Your task to perform on an android device: Clear the shopping cart on newegg.com. Image 0: 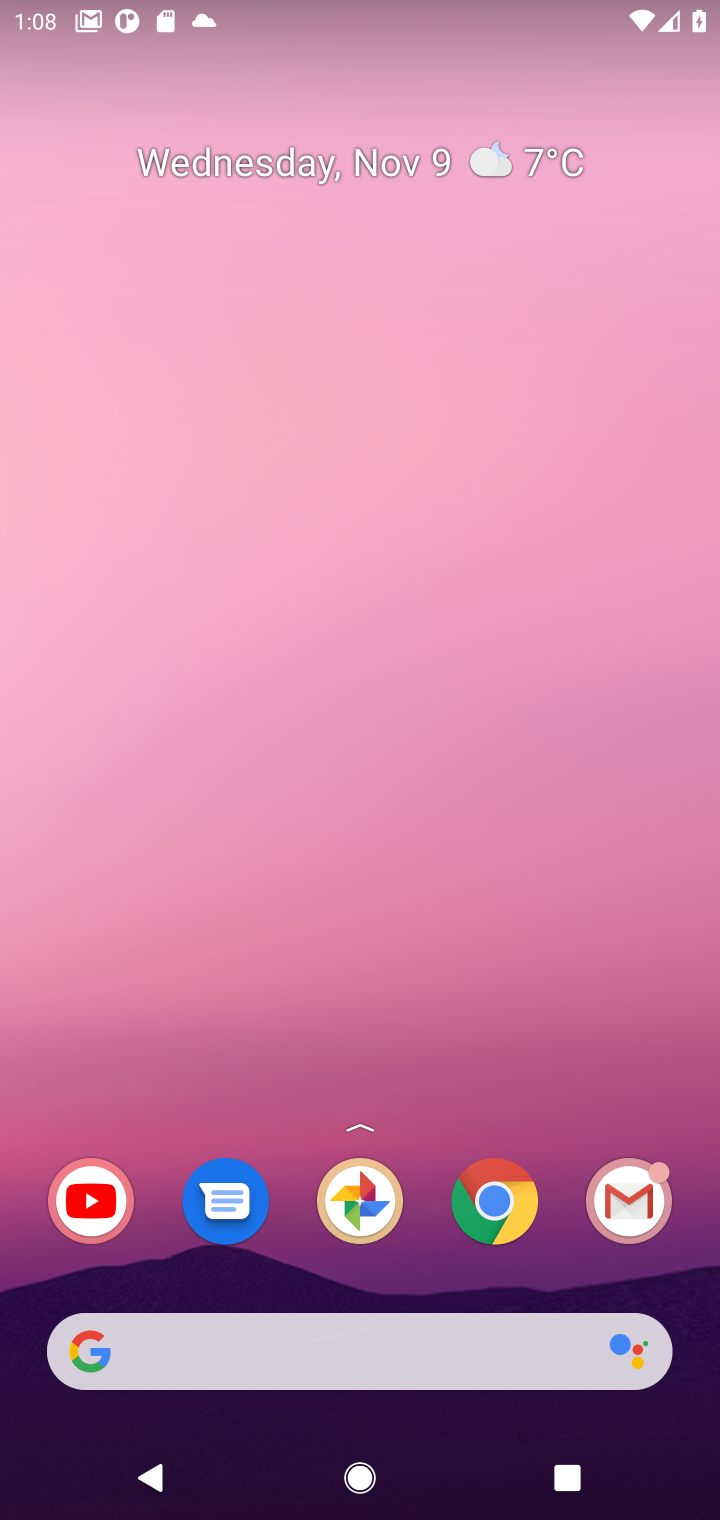
Step 0: click (335, 1372)
Your task to perform on an android device: Clear the shopping cart on newegg.com. Image 1: 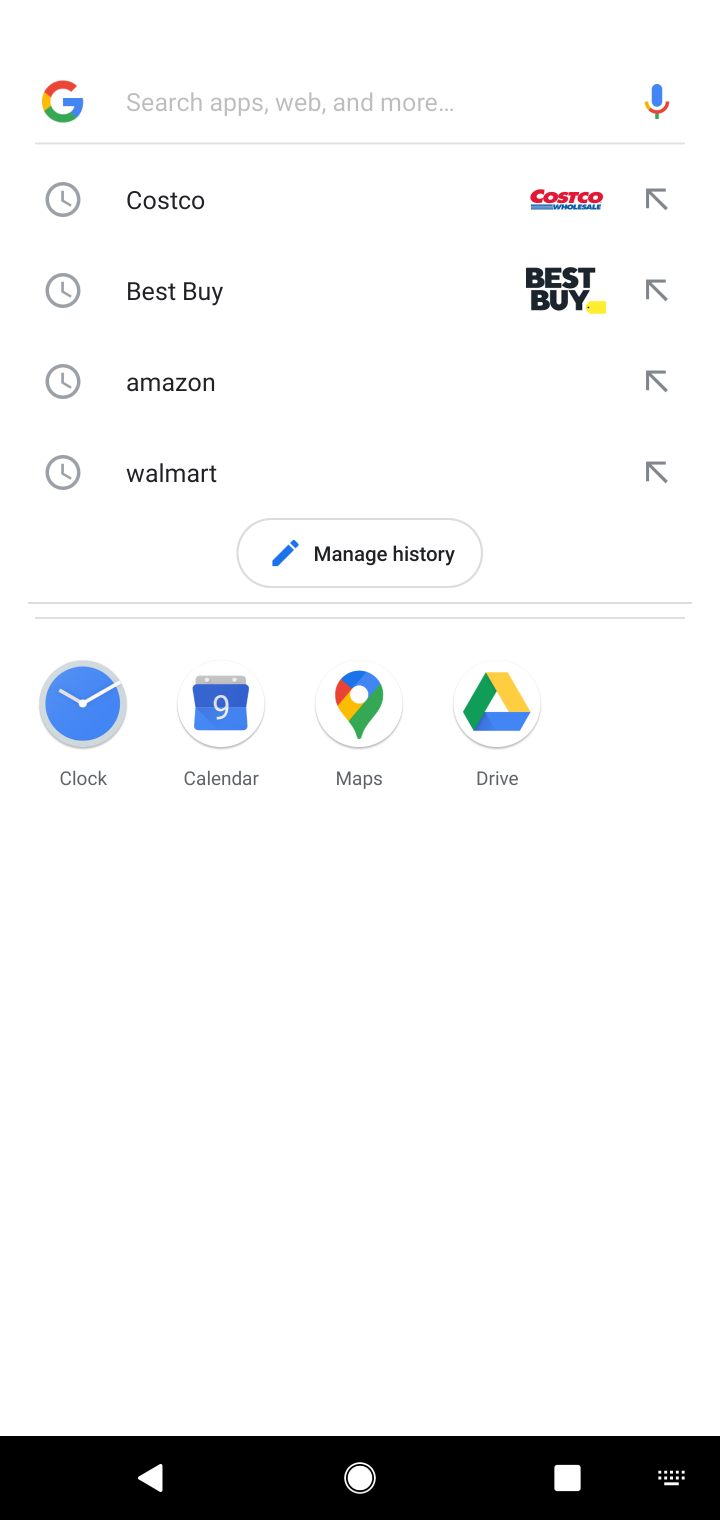
Step 1: type "newegg.com"
Your task to perform on an android device: Clear the shopping cart on newegg.com. Image 2: 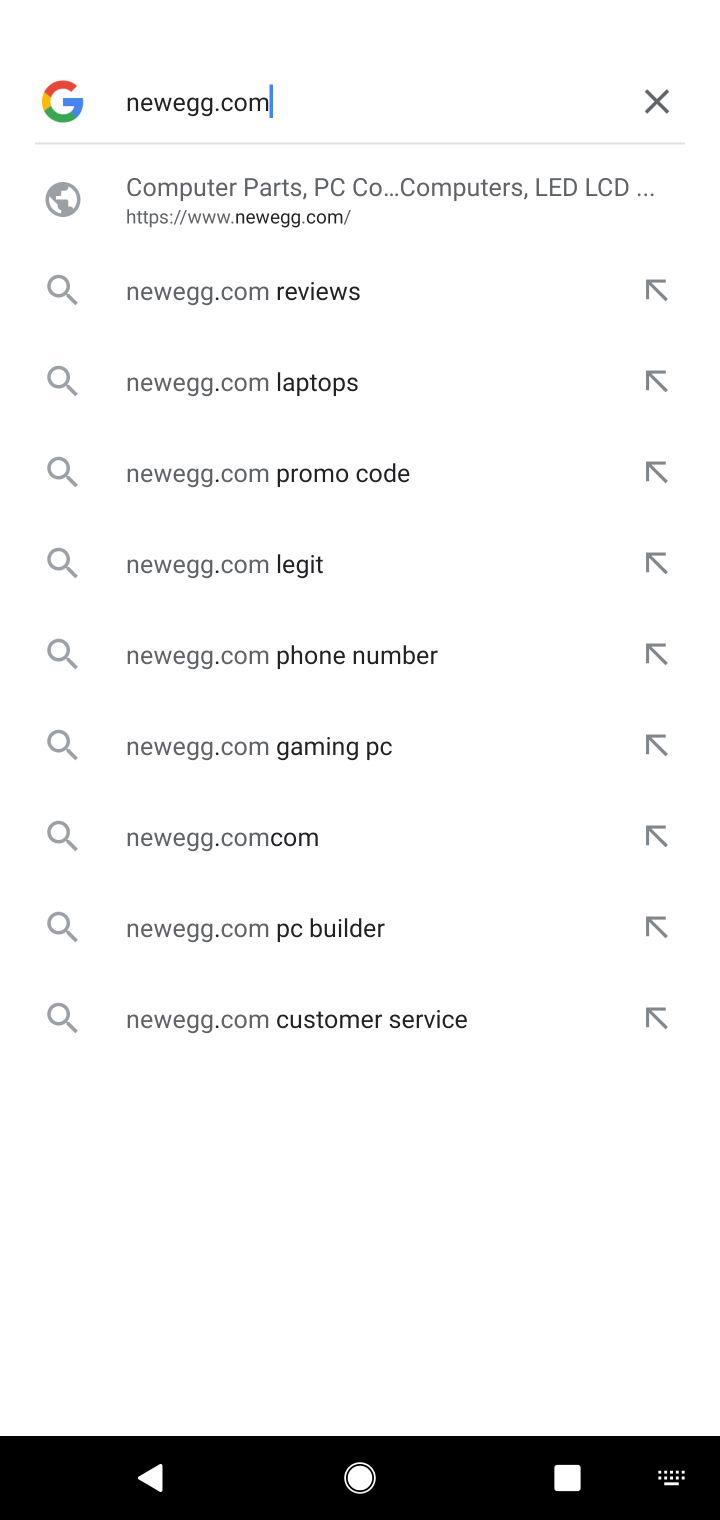
Step 2: click (315, 215)
Your task to perform on an android device: Clear the shopping cart on newegg.com. Image 3: 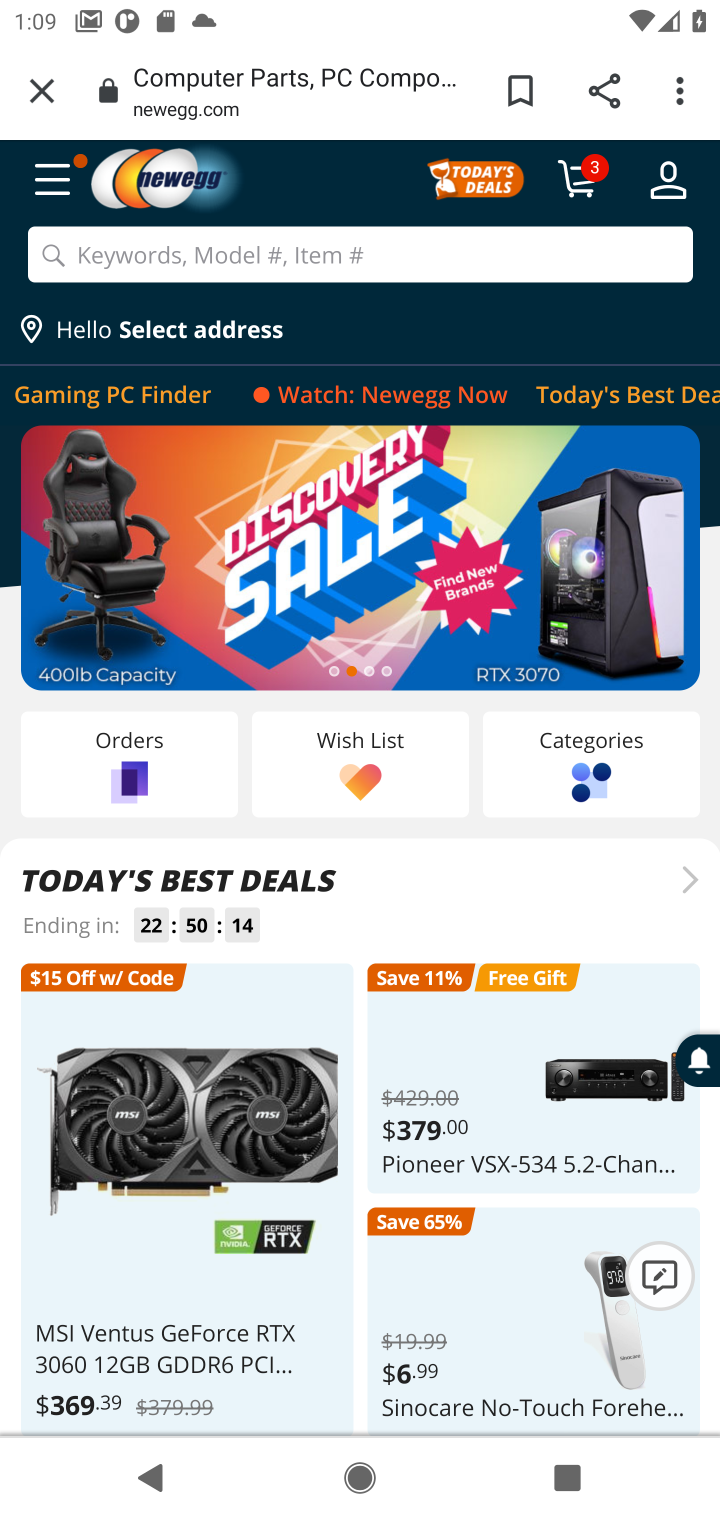
Step 3: click (587, 183)
Your task to perform on an android device: Clear the shopping cart on newegg.com. Image 4: 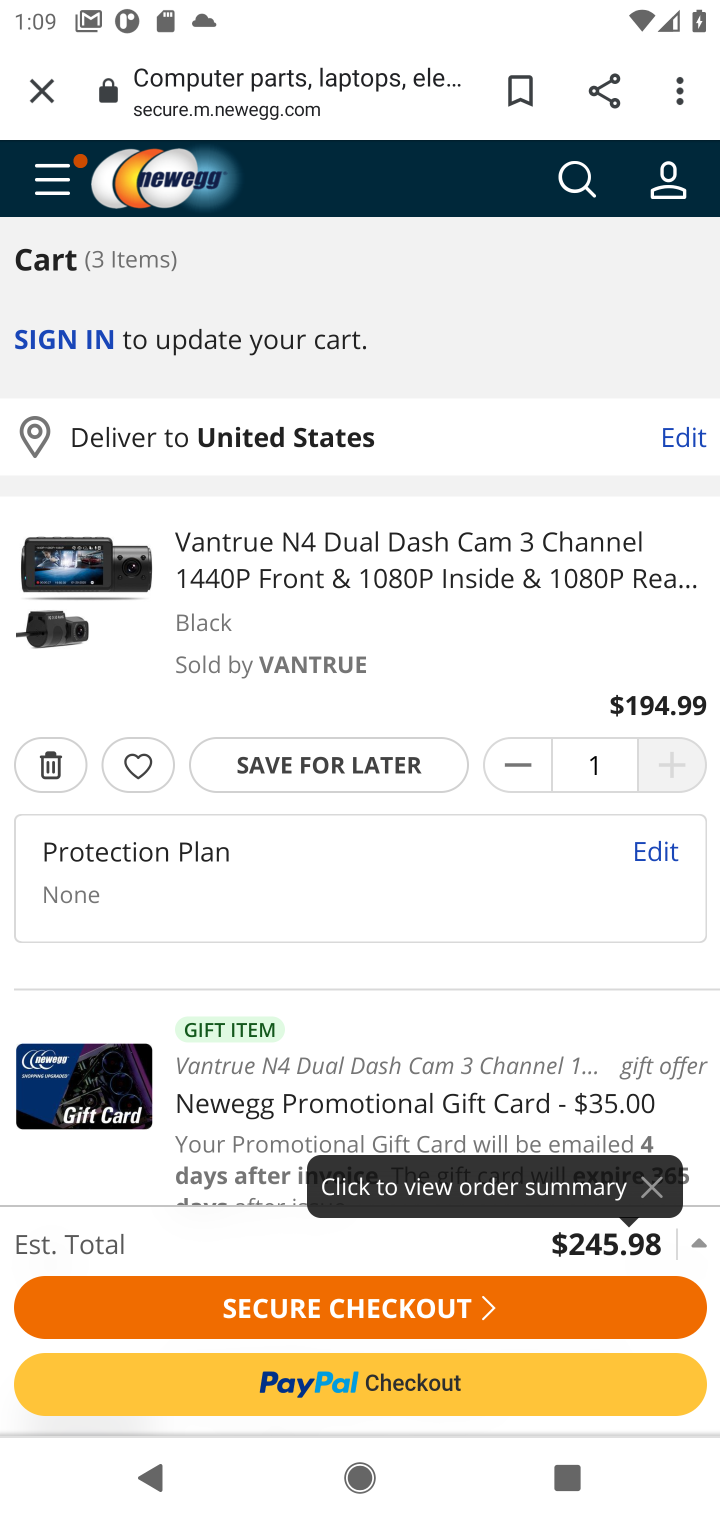
Step 4: click (63, 769)
Your task to perform on an android device: Clear the shopping cart on newegg.com. Image 5: 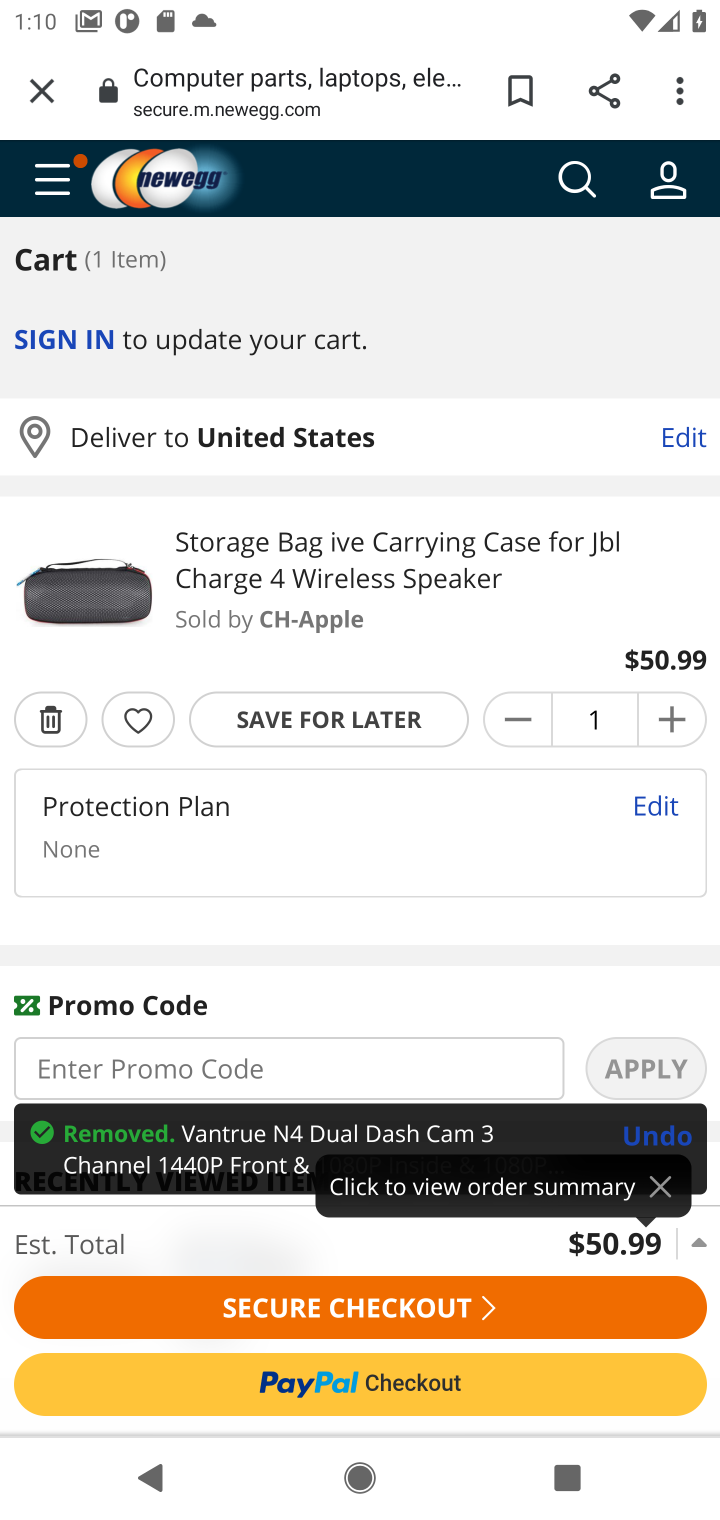
Step 5: click (60, 705)
Your task to perform on an android device: Clear the shopping cart on newegg.com. Image 6: 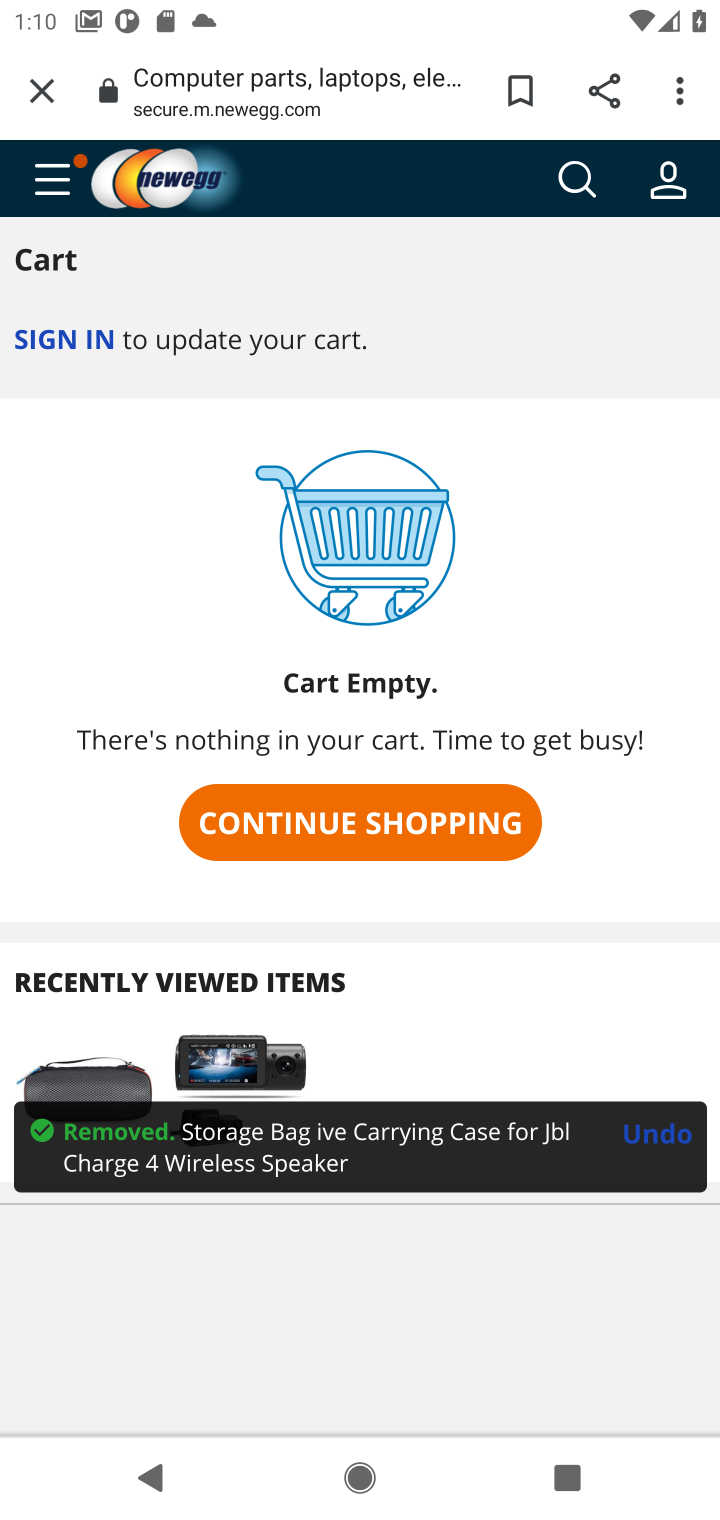
Step 6: task complete